Your task to perform on an android device: Open Google Chrome and click the shortcut for Amazon.com Image 0: 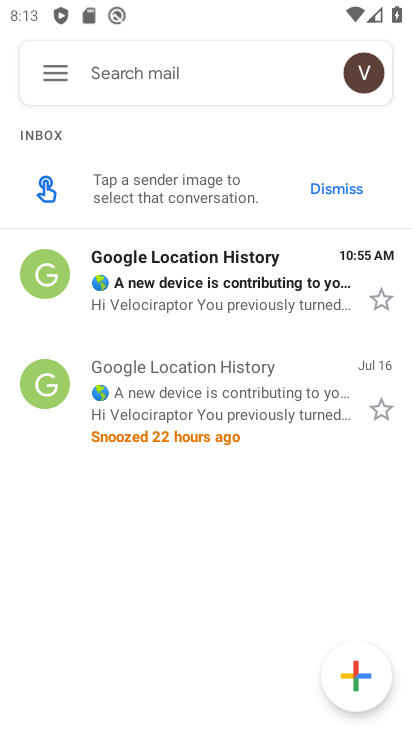
Step 0: press home button
Your task to perform on an android device: Open Google Chrome and click the shortcut for Amazon.com Image 1: 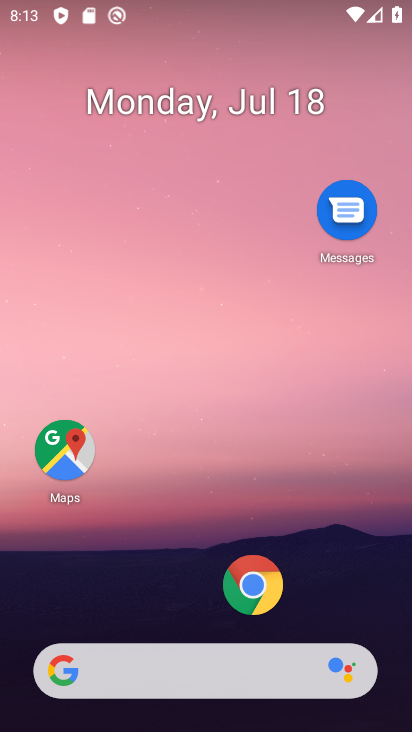
Step 1: click (248, 601)
Your task to perform on an android device: Open Google Chrome and click the shortcut for Amazon.com Image 2: 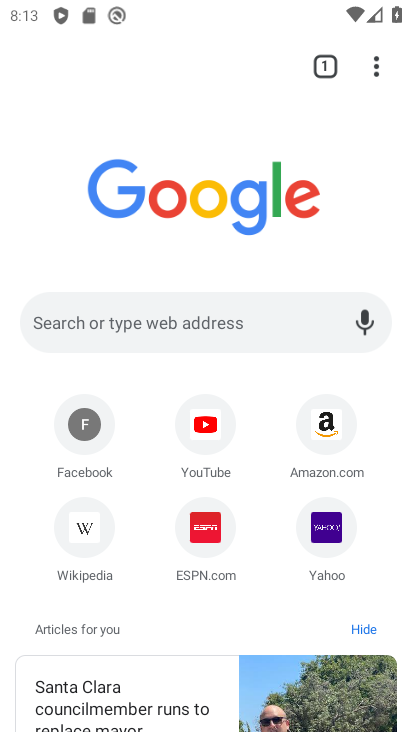
Step 2: click (327, 424)
Your task to perform on an android device: Open Google Chrome and click the shortcut for Amazon.com Image 3: 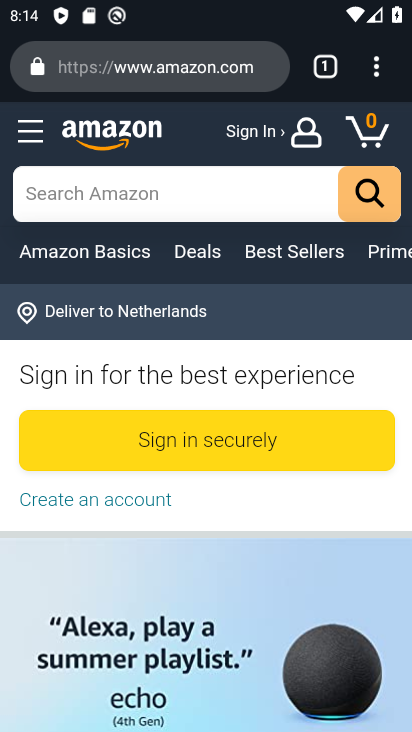
Step 3: task complete